Your task to perform on an android device: Open Google Maps Image 0: 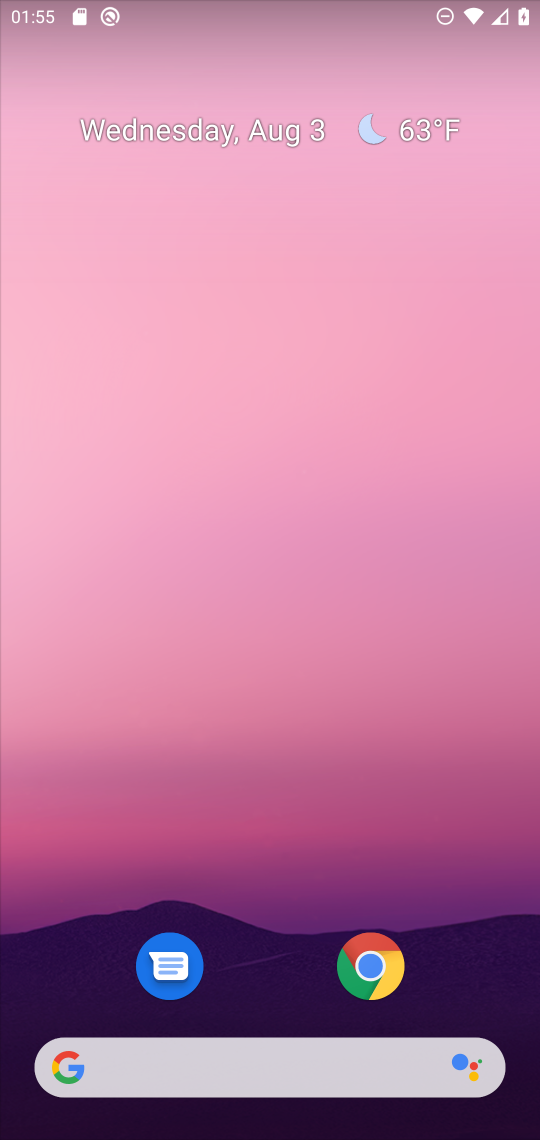
Step 0: drag from (279, 944) to (206, 378)
Your task to perform on an android device: Open Google Maps Image 1: 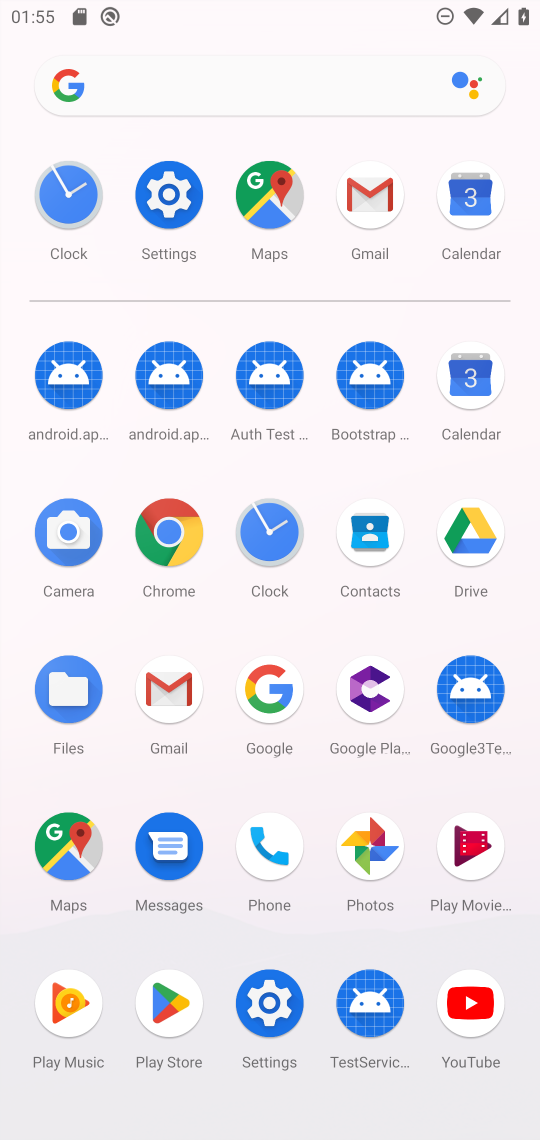
Step 1: click (288, 225)
Your task to perform on an android device: Open Google Maps Image 2: 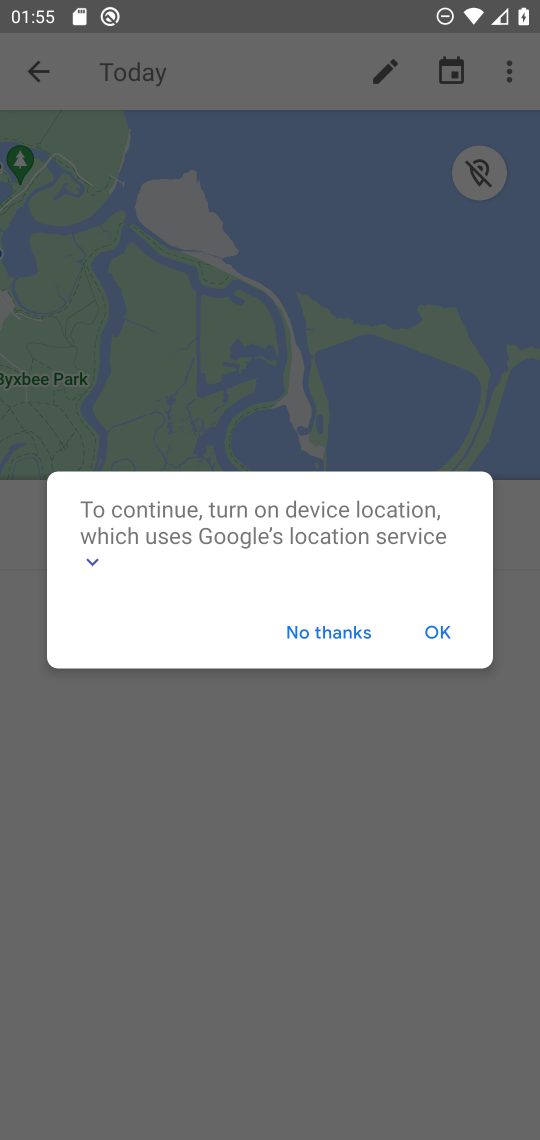
Step 2: click (443, 621)
Your task to perform on an android device: Open Google Maps Image 3: 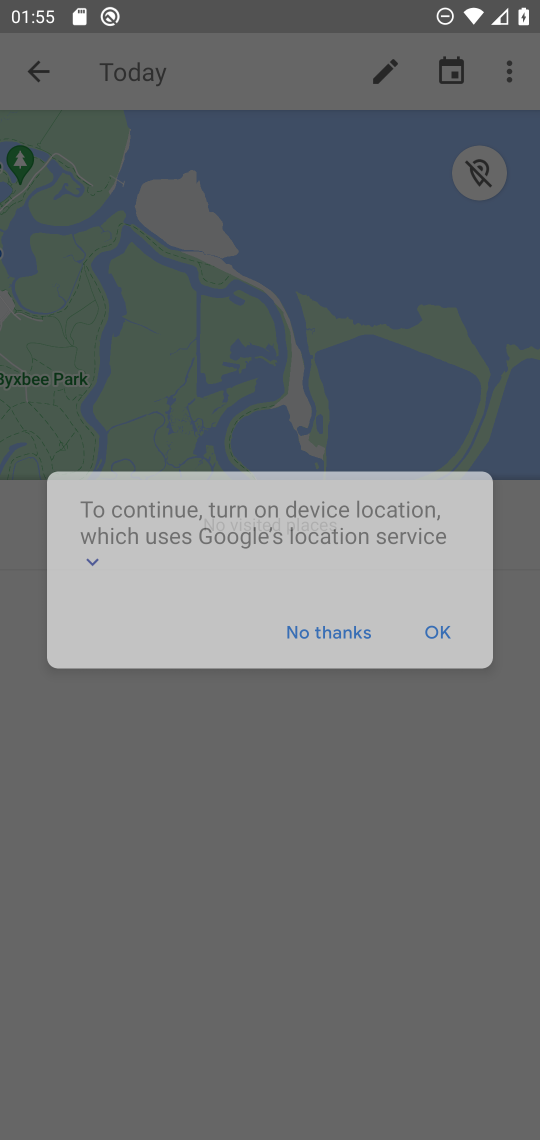
Step 3: task complete